Your task to perform on an android device: toggle show notifications on the lock screen Image 0: 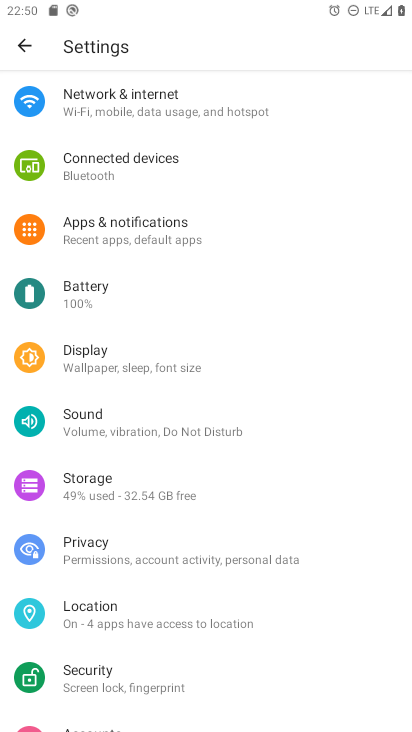
Step 0: click (140, 231)
Your task to perform on an android device: toggle show notifications on the lock screen Image 1: 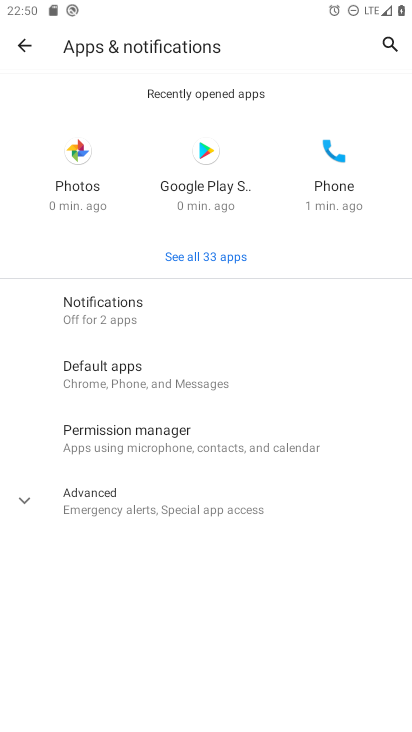
Step 1: click (155, 316)
Your task to perform on an android device: toggle show notifications on the lock screen Image 2: 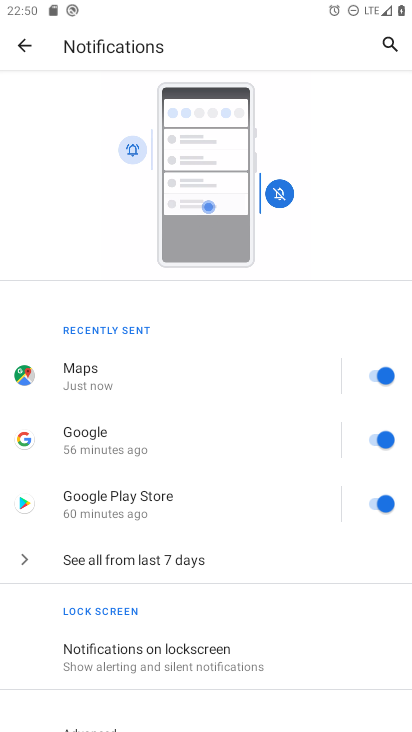
Step 2: click (135, 637)
Your task to perform on an android device: toggle show notifications on the lock screen Image 3: 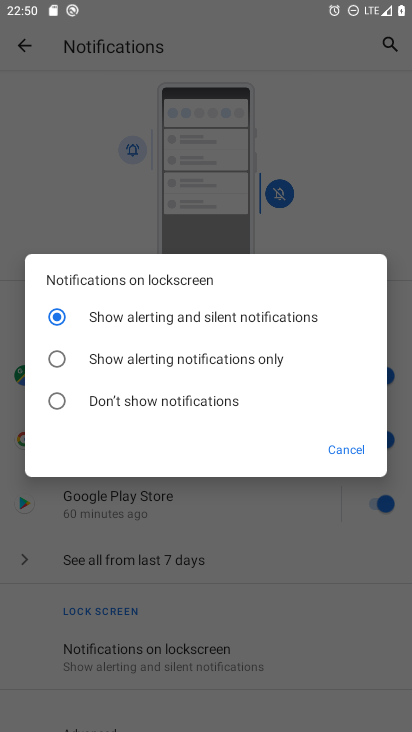
Step 3: click (112, 320)
Your task to perform on an android device: toggle show notifications on the lock screen Image 4: 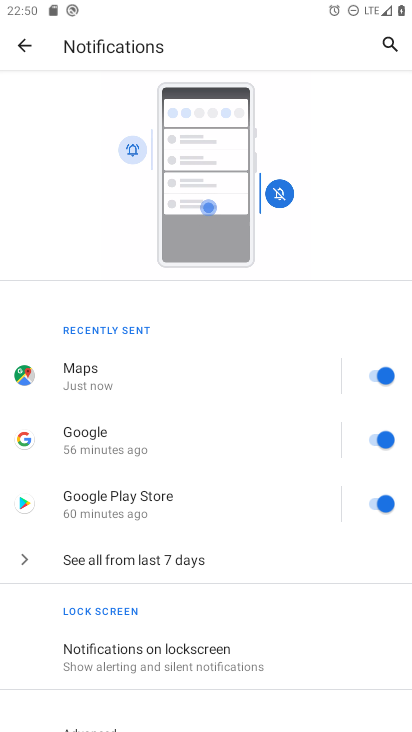
Step 4: task complete